Your task to perform on an android device: Go to Maps Image 0: 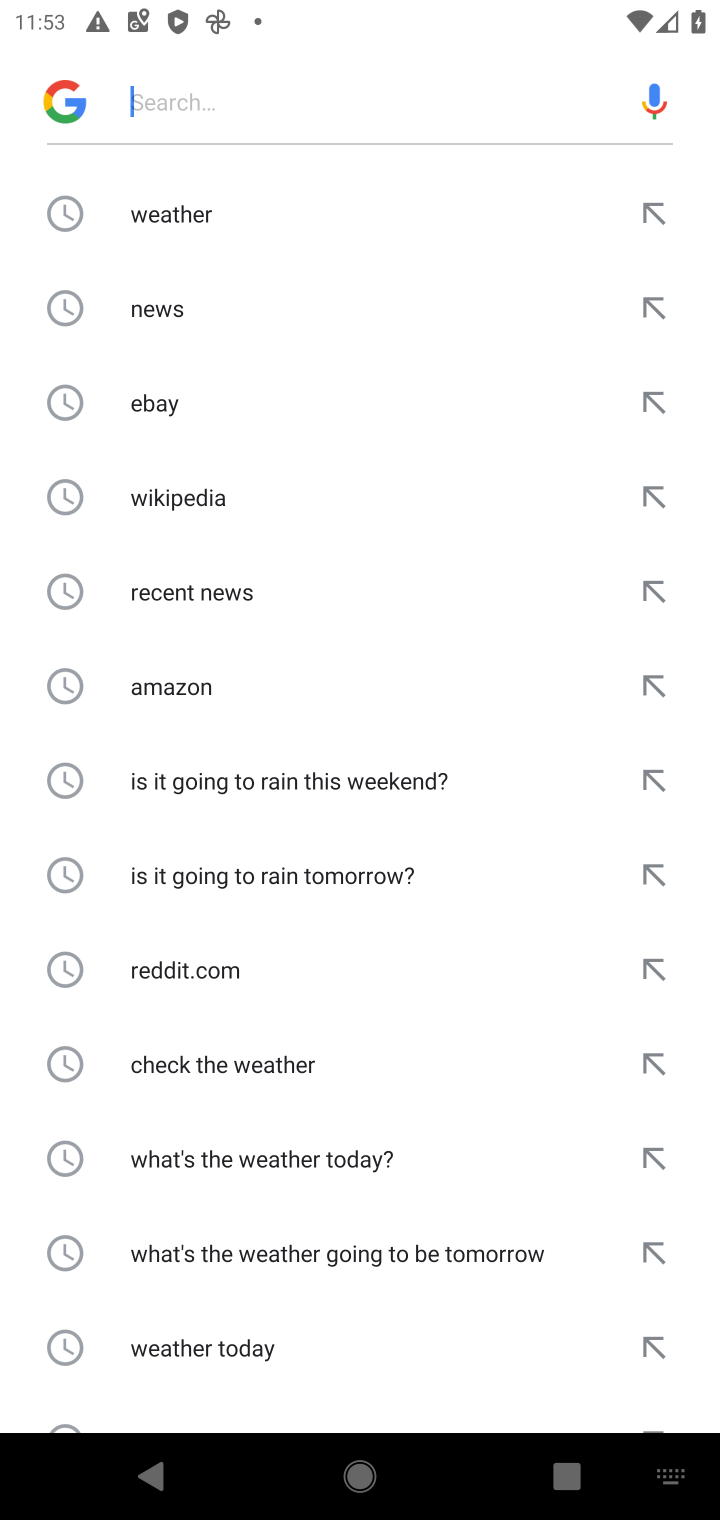
Step 0: press home button
Your task to perform on an android device: Go to Maps Image 1: 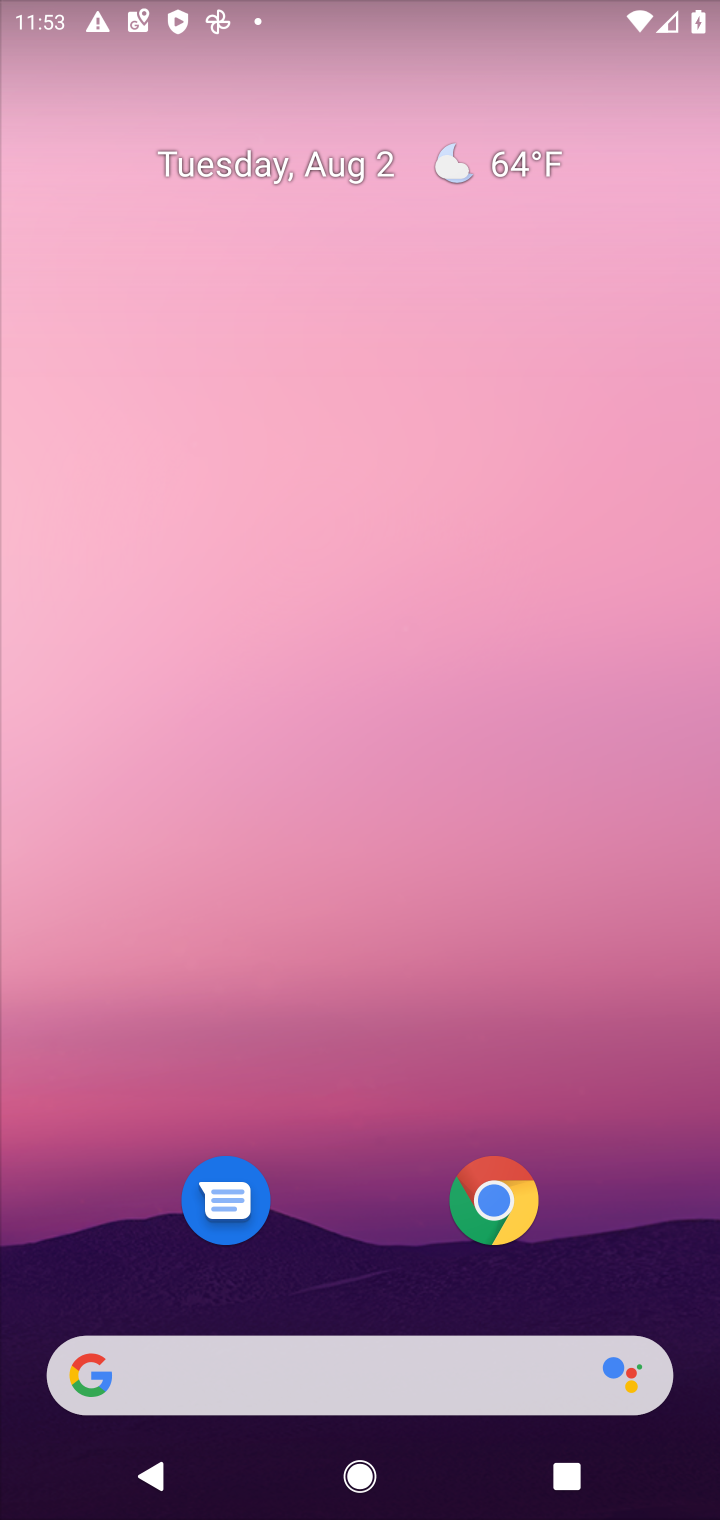
Step 1: drag from (691, 1295) to (560, 80)
Your task to perform on an android device: Go to Maps Image 2: 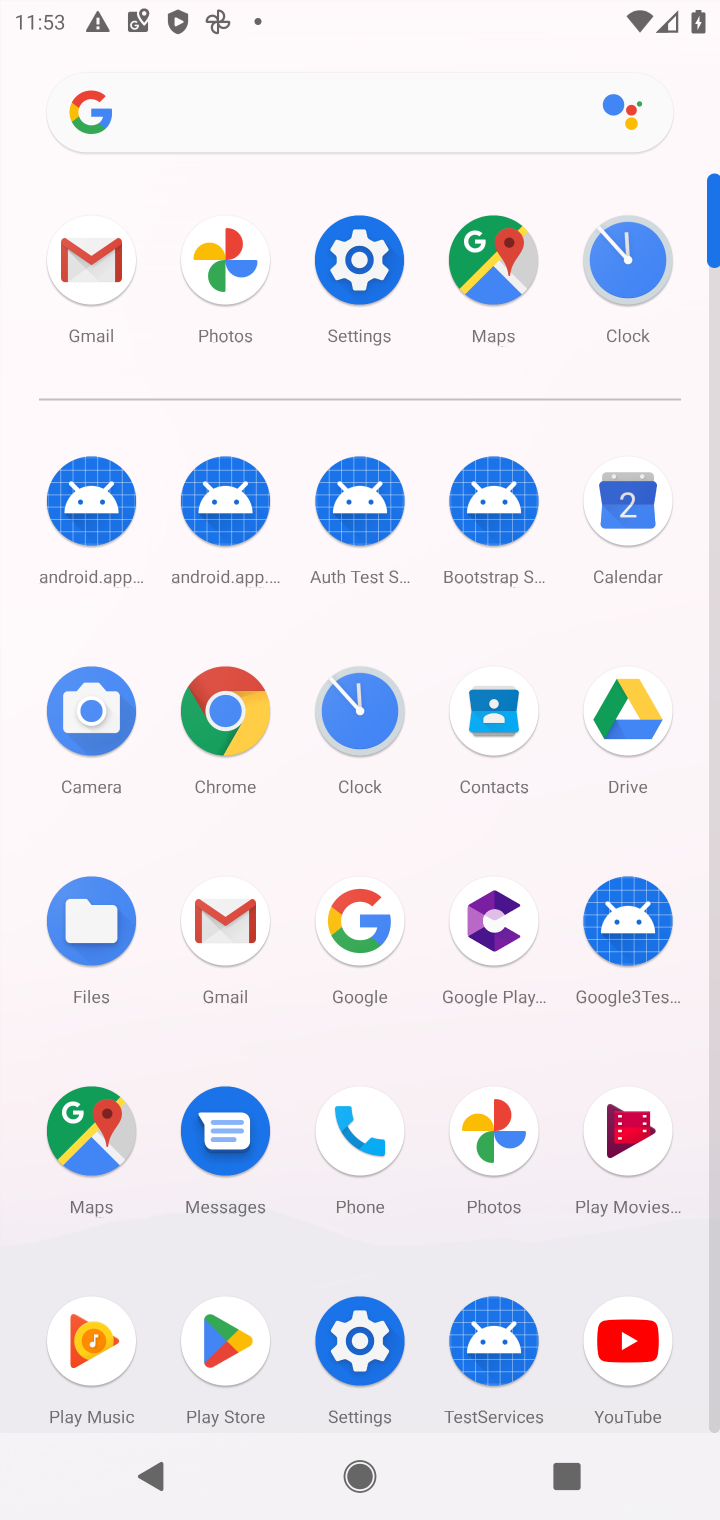
Step 2: click (88, 1139)
Your task to perform on an android device: Go to Maps Image 3: 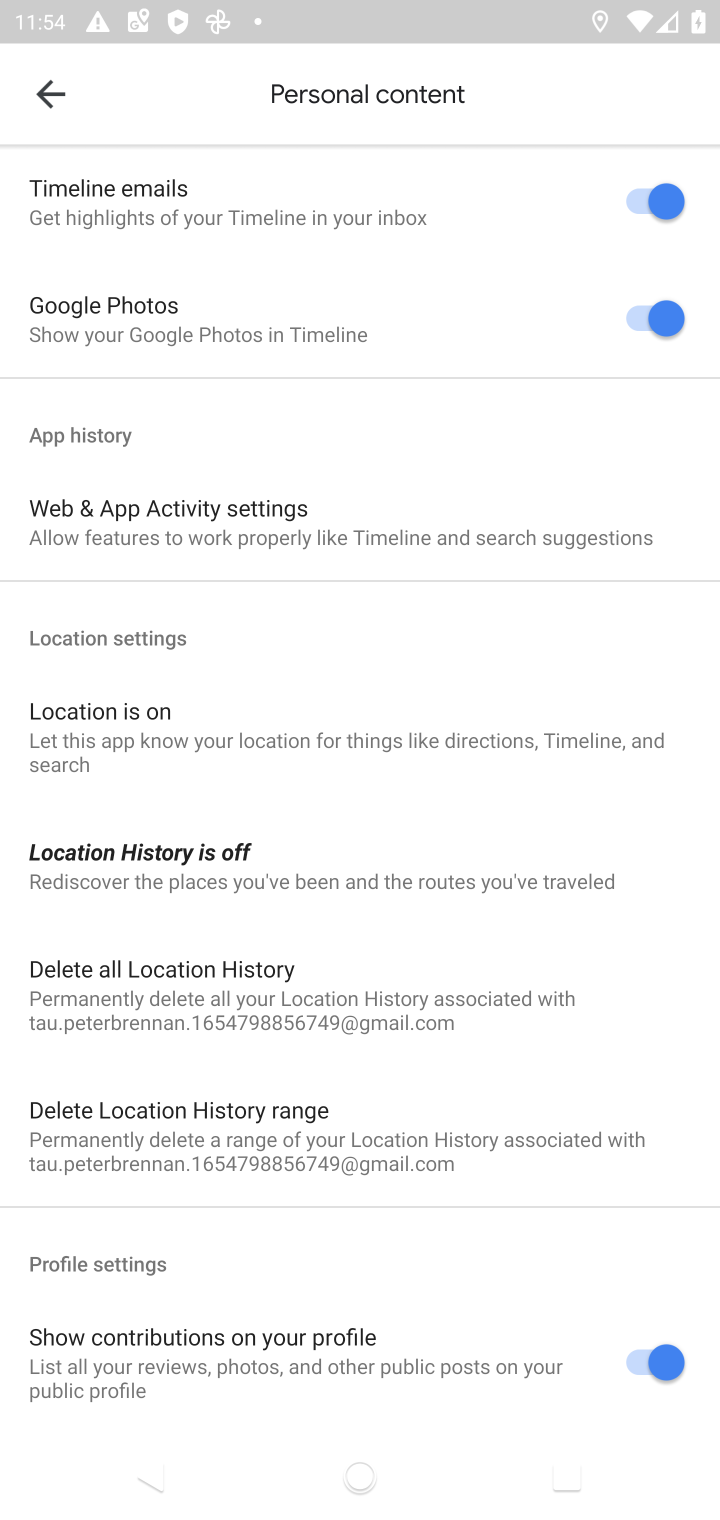
Step 3: task complete